Your task to perform on an android device: check battery use Image 0: 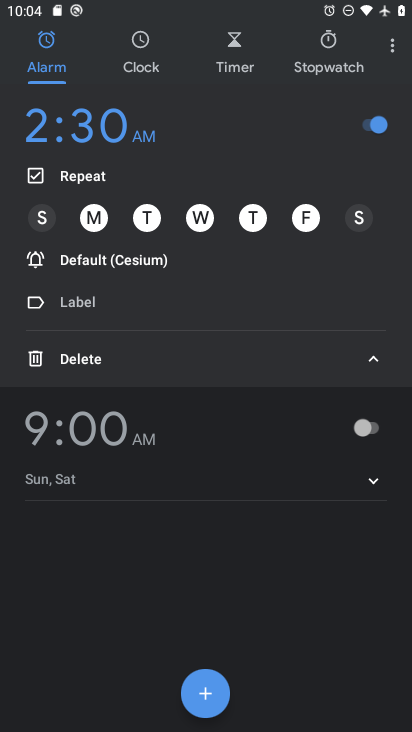
Step 0: press home button
Your task to perform on an android device: check battery use Image 1: 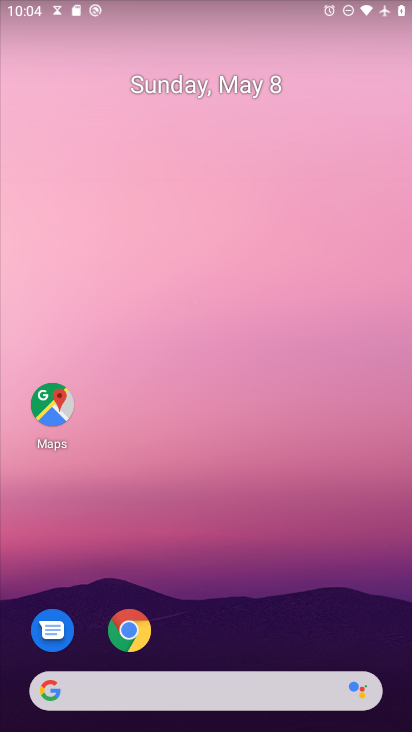
Step 1: drag from (177, 692) to (379, 90)
Your task to perform on an android device: check battery use Image 2: 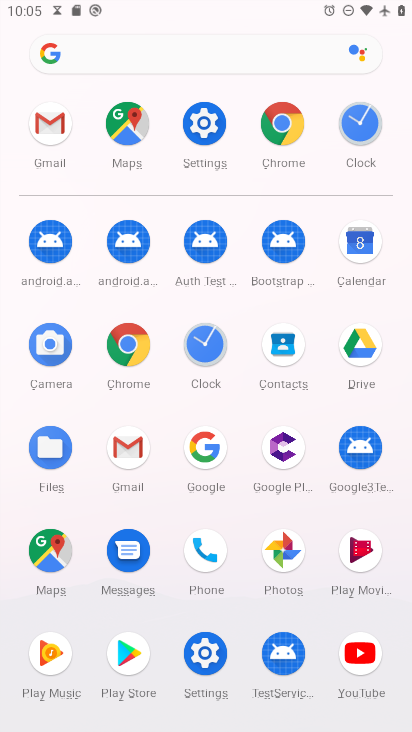
Step 2: click (210, 129)
Your task to perform on an android device: check battery use Image 3: 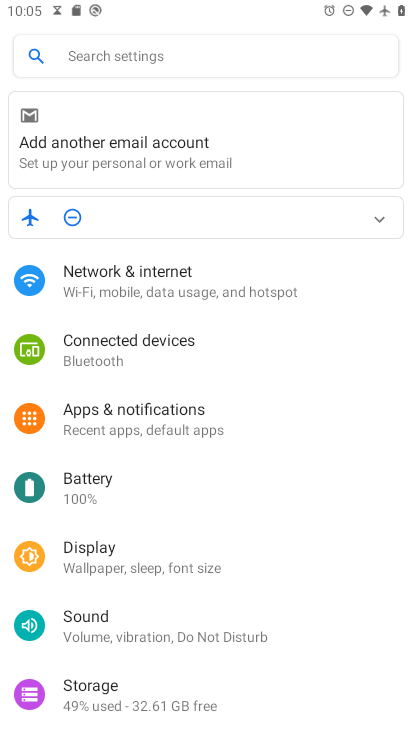
Step 3: click (146, 499)
Your task to perform on an android device: check battery use Image 4: 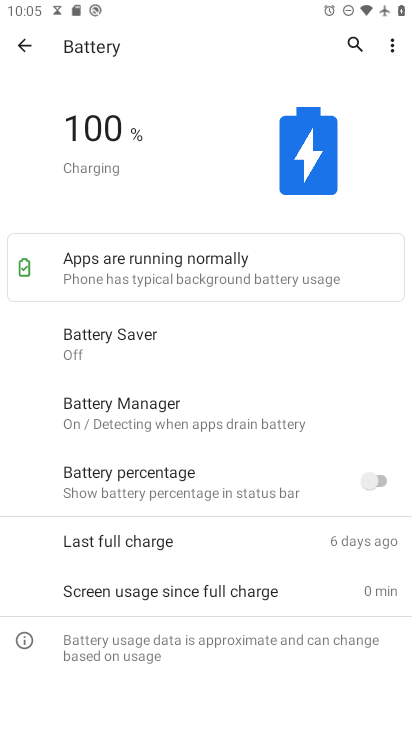
Step 4: click (391, 48)
Your task to perform on an android device: check battery use Image 5: 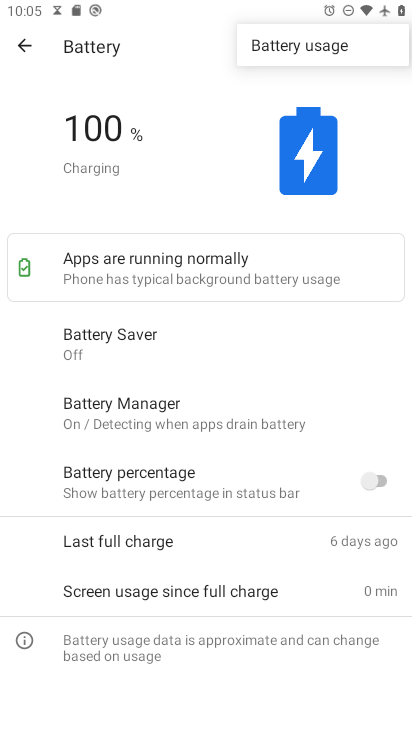
Step 5: click (324, 49)
Your task to perform on an android device: check battery use Image 6: 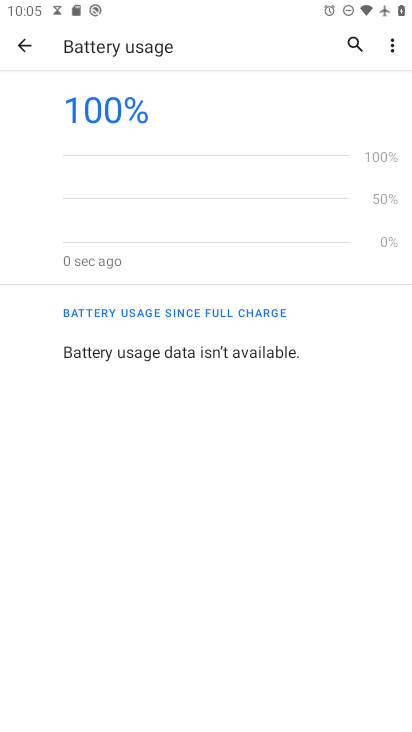
Step 6: task complete